Your task to perform on an android device: Go to location settings Image 0: 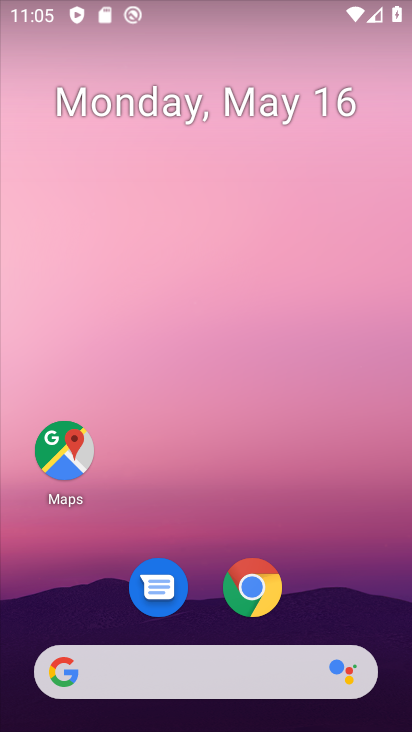
Step 0: drag from (338, 575) to (318, 232)
Your task to perform on an android device: Go to location settings Image 1: 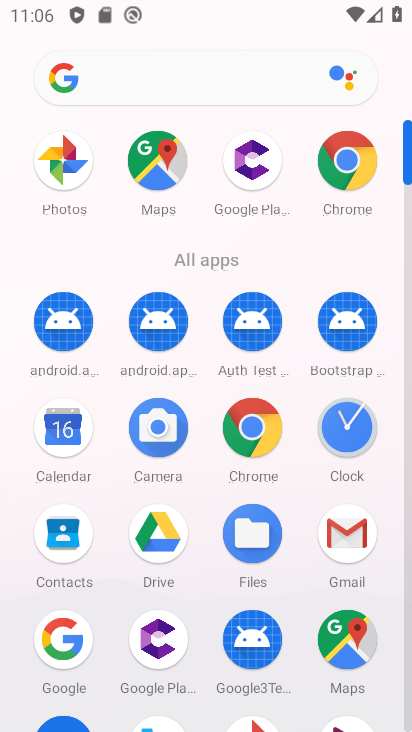
Step 1: drag from (212, 600) to (247, 200)
Your task to perform on an android device: Go to location settings Image 2: 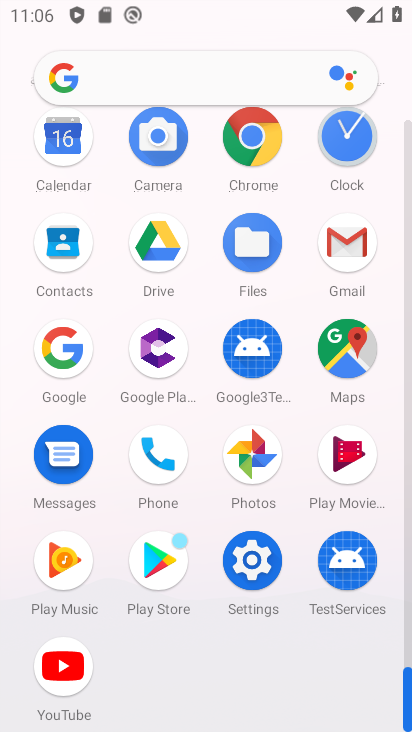
Step 2: click (247, 555)
Your task to perform on an android device: Go to location settings Image 3: 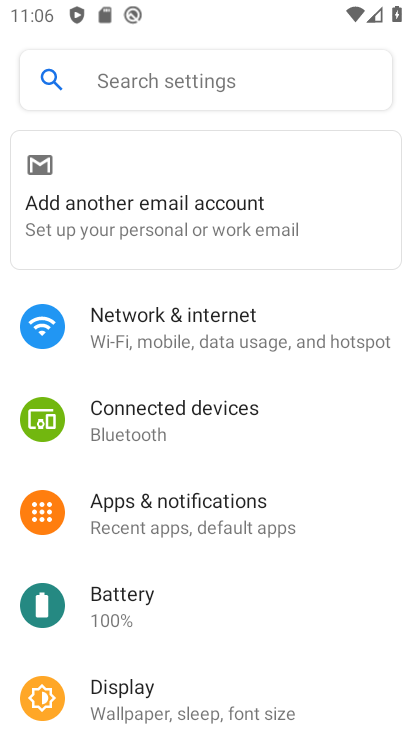
Step 3: drag from (149, 627) to (200, 267)
Your task to perform on an android device: Go to location settings Image 4: 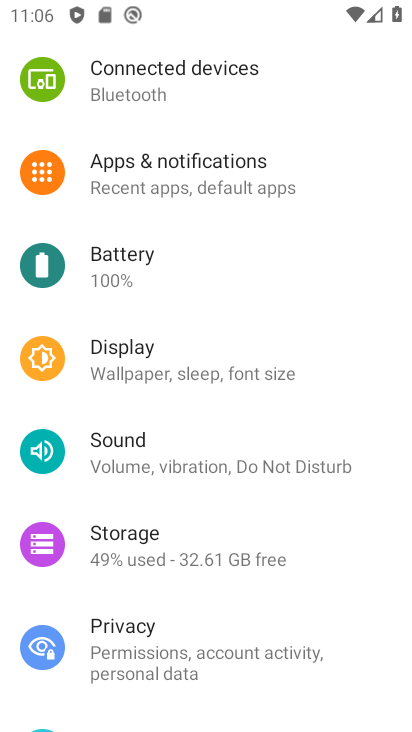
Step 4: drag from (136, 637) to (217, 165)
Your task to perform on an android device: Go to location settings Image 5: 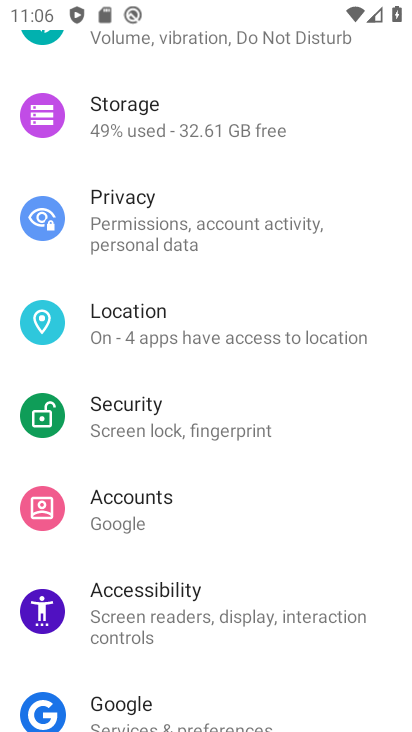
Step 5: click (164, 338)
Your task to perform on an android device: Go to location settings Image 6: 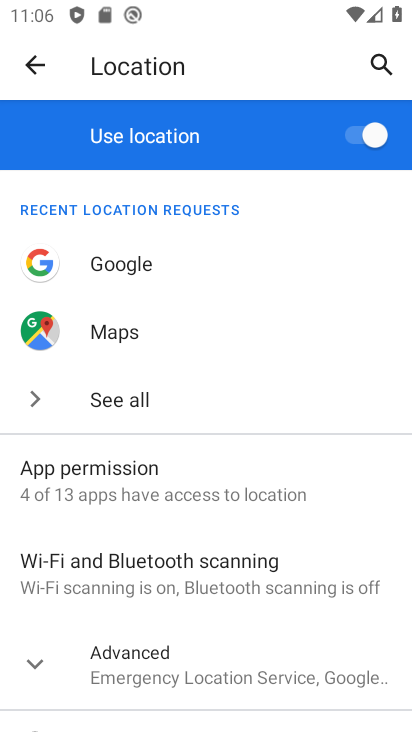
Step 6: task complete